Your task to perform on an android device: change the clock display to analog Image 0: 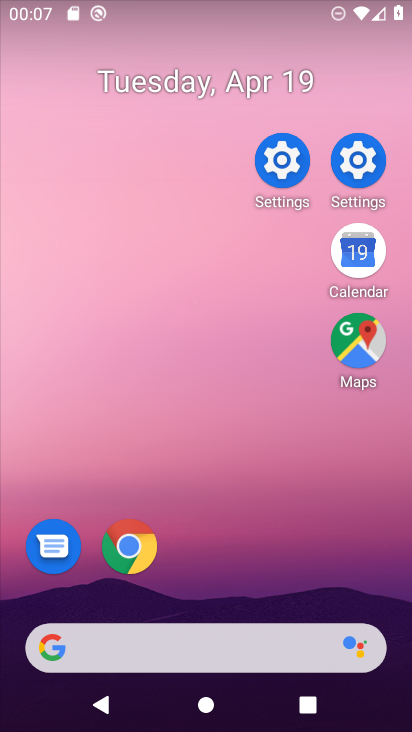
Step 0: drag from (203, 92) to (163, 0)
Your task to perform on an android device: change the clock display to analog Image 1: 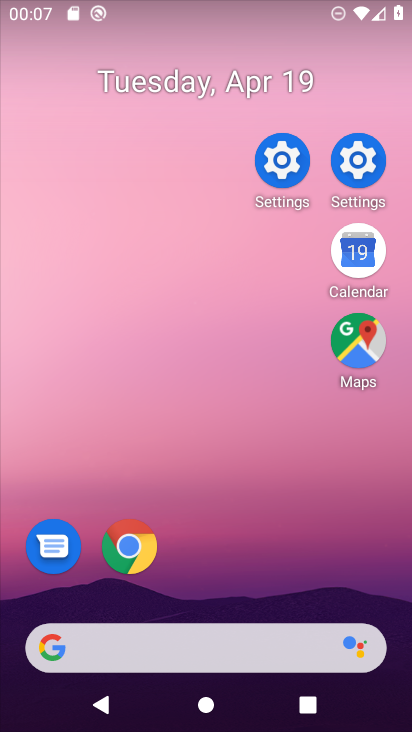
Step 1: drag from (213, 424) to (155, 69)
Your task to perform on an android device: change the clock display to analog Image 2: 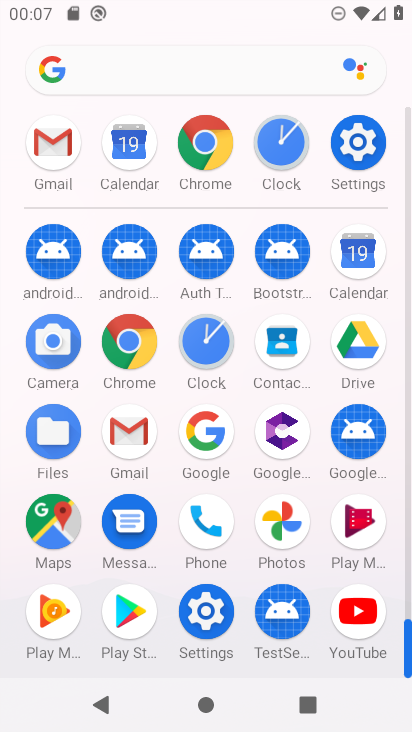
Step 2: drag from (343, 592) to (240, 300)
Your task to perform on an android device: change the clock display to analog Image 3: 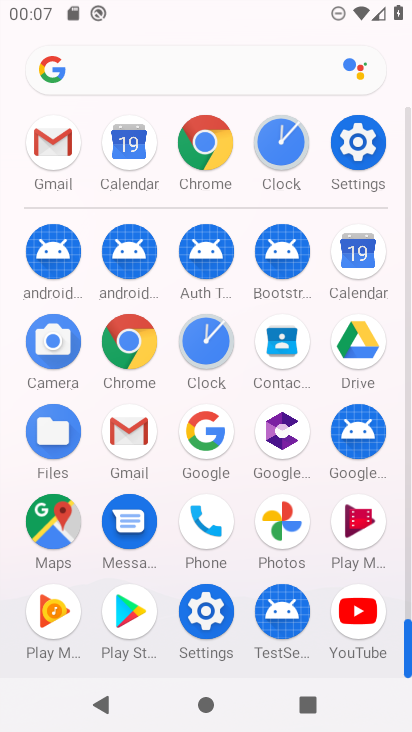
Step 3: click (276, 138)
Your task to perform on an android device: change the clock display to analog Image 4: 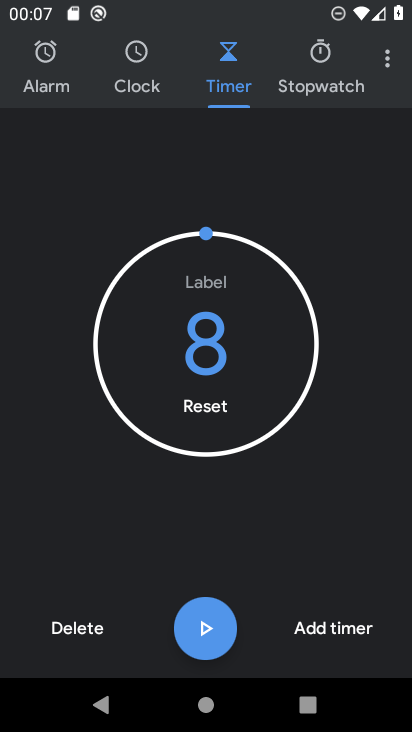
Step 4: click (389, 48)
Your task to perform on an android device: change the clock display to analog Image 5: 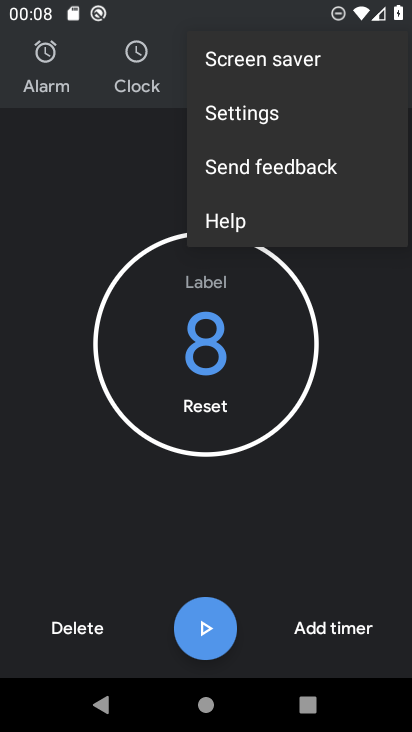
Step 5: click (389, 48)
Your task to perform on an android device: change the clock display to analog Image 6: 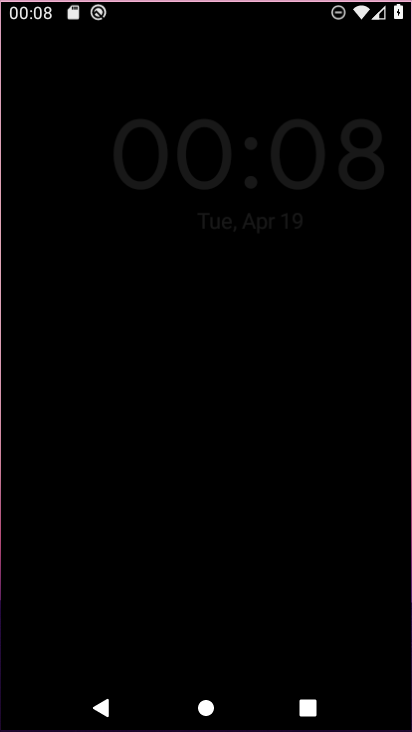
Step 6: click (239, 122)
Your task to perform on an android device: change the clock display to analog Image 7: 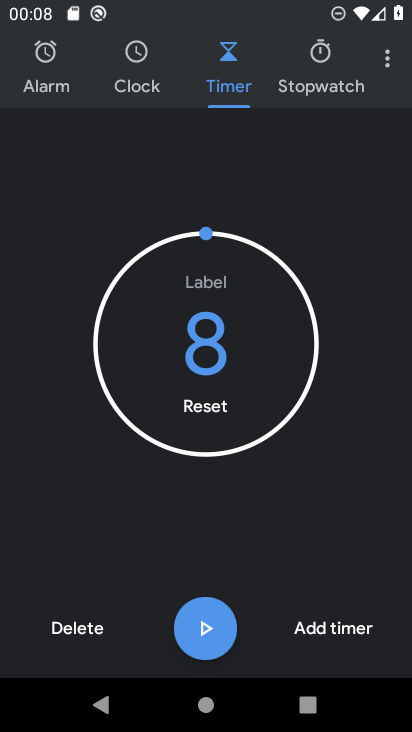
Step 7: click (390, 67)
Your task to perform on an android device: change the clock display to analog Image 8: 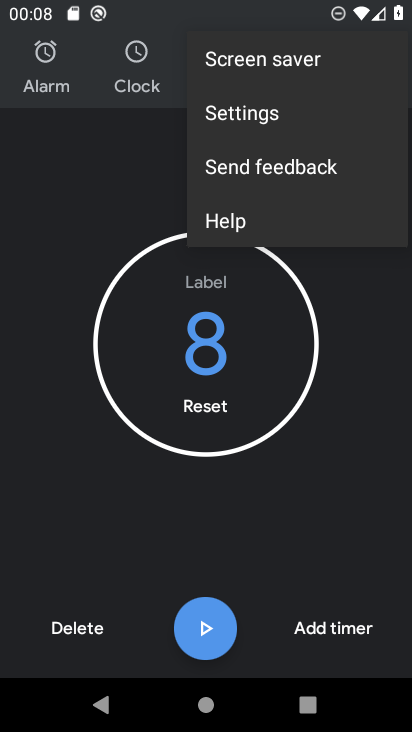
Step 8: click (228, 112)
Your task to perform on an android device: change the clock display to analog Image 9: 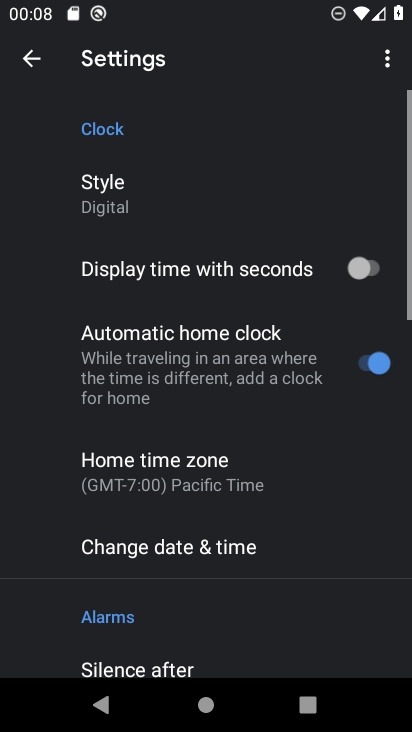
Step 9: click (229, 111)
Your task to perform on an android device: change the clock display to analog Image 10: 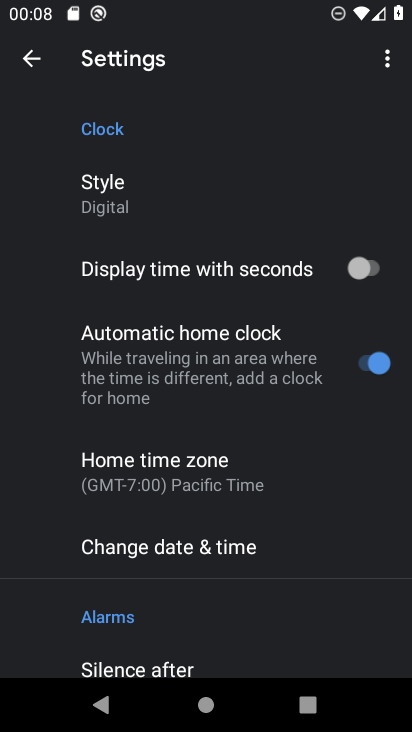
Step 10: click (168, 186)
Your task to perform on an android device: change the clock display to analog Image 11: 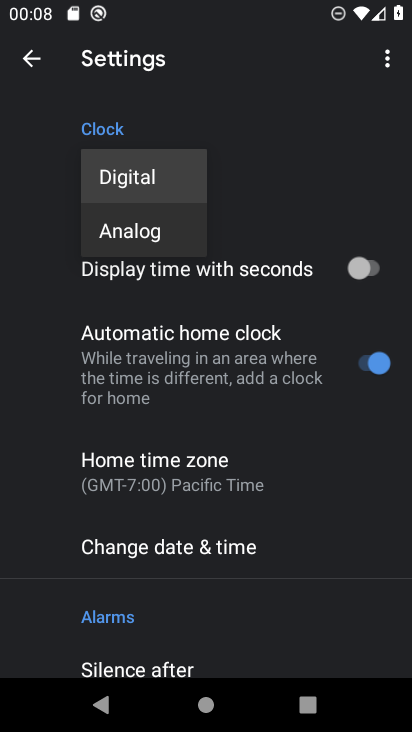
Step 11: click (146, 235)
Your task to perform on an android device: change the clock display to analog Image 12: 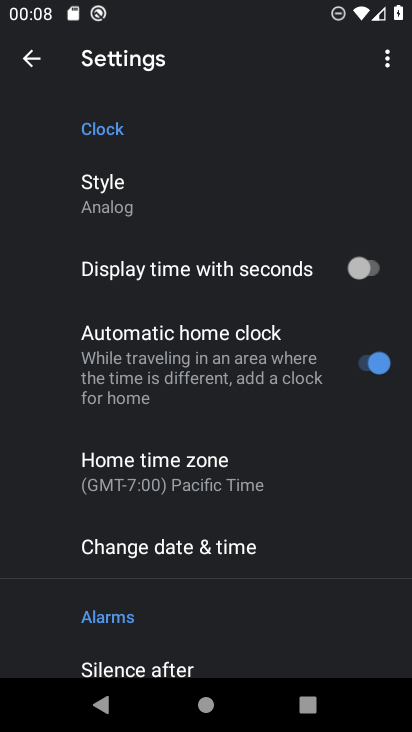
Step 12: task complete